Your task to perform on an android device: Go to Amazon Image 0: 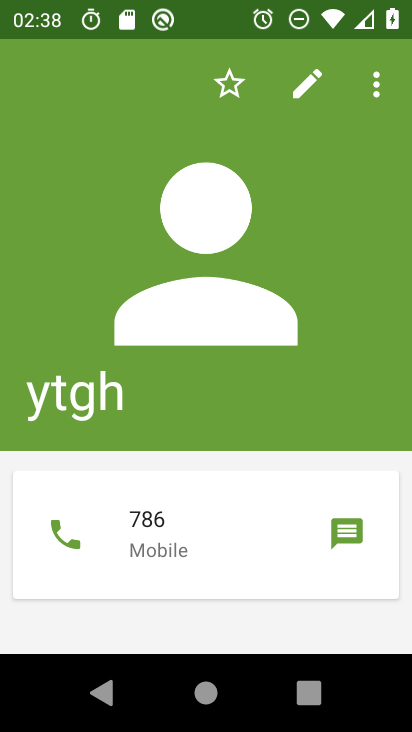
Step 0: press home button
Your task to perform on an android device: Go to Amazon Image 1: 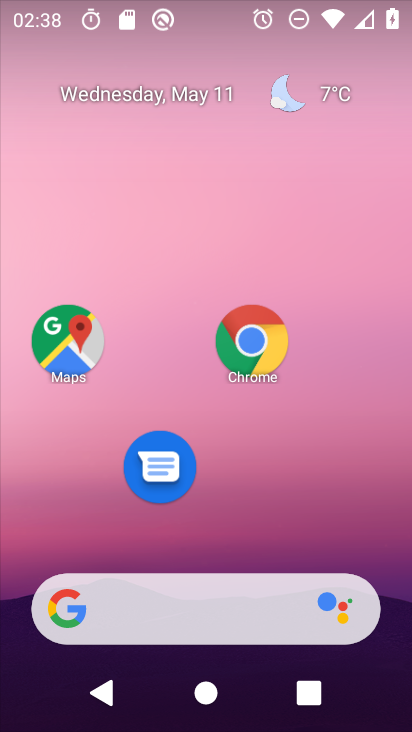
Step 1: click (258, 346)
Your task to perform on an android device: Go to Amazon Image 2: 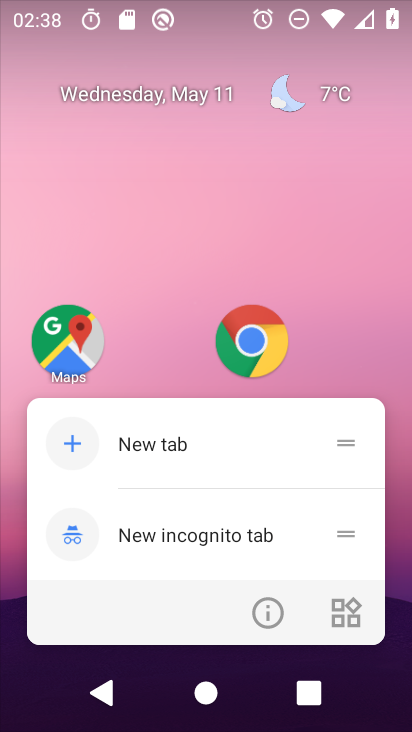
Step 2: click (258, 347)
Your task to perform on an android device: Go to Amazon Image 3: 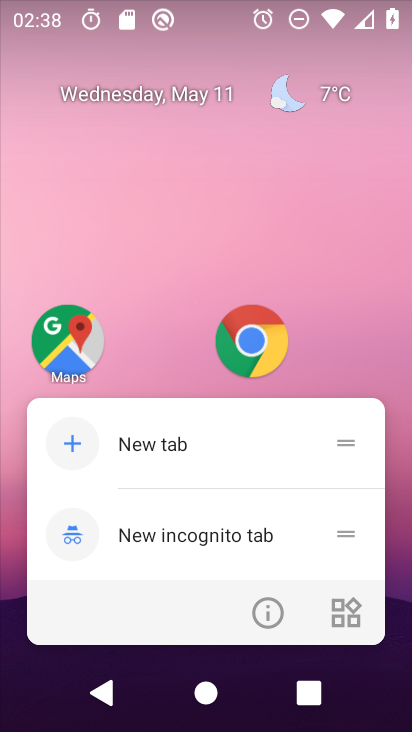
Step 3: click (249, 342)
Your task to perform on an android device: Go to Amazon Image 4: 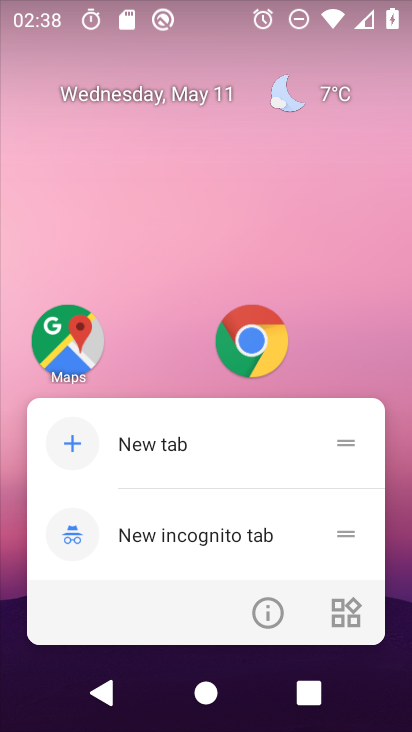
Step 4: click (251, 328)
Your task to perform on an android device: Go to Amazon Image 5: 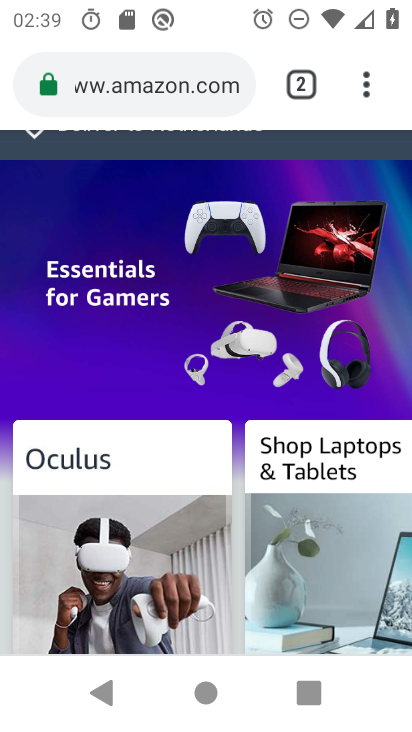
Step 5: task complete